Your task to perform on an android device: Open Chrome and go to the settings page Image 0: 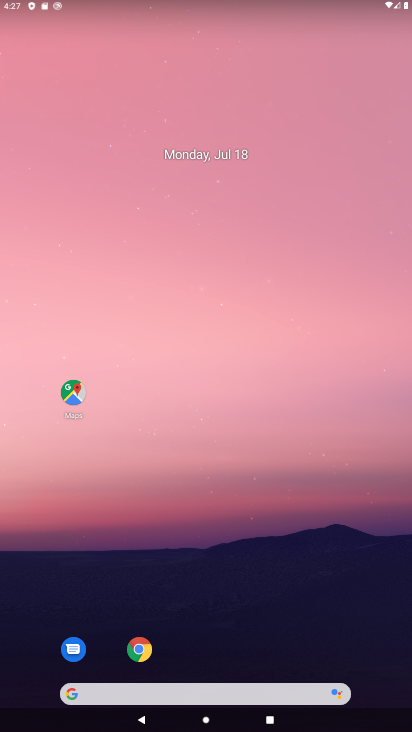
Step 0: click (137, 656)
Your task to perform on an android device: Open Chrome and go to the settings page Image 1: 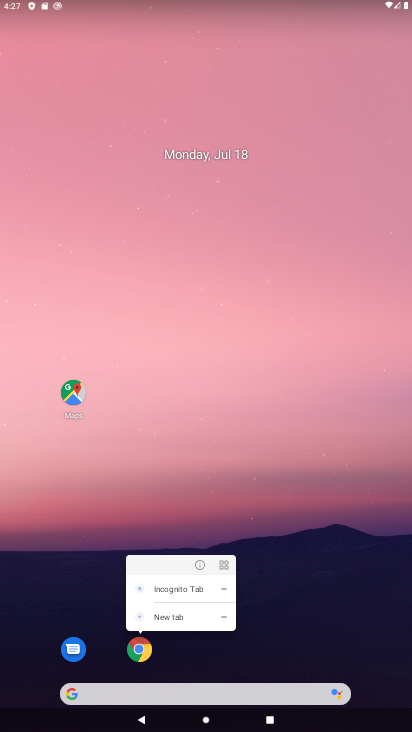
Step 1: click (144, 650)
Your task to perform on an android device: Open Chrome and go to the settings page Image 2: 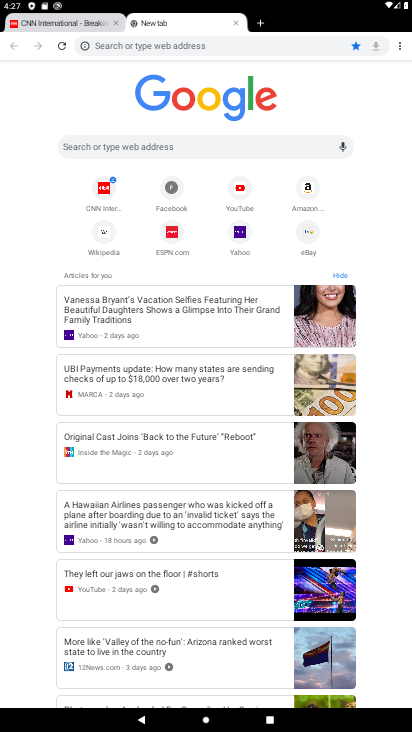
Step 2: click (400, 45)
Your task to perform on an android device: Open Chrome and go to the settings page Image 3: 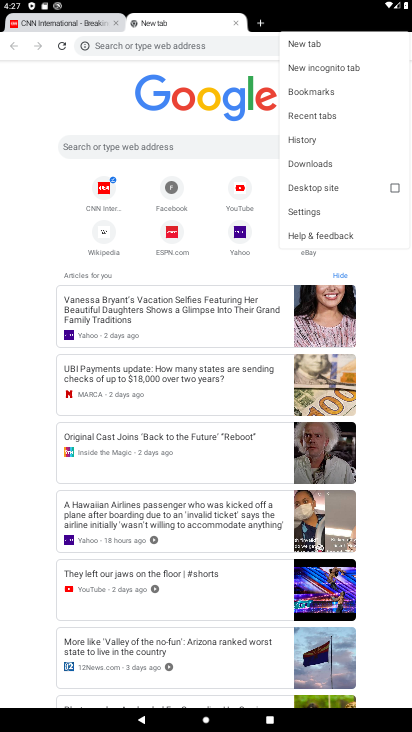
Step 3: click (307, 213)
Your task to perform on an android device: Open Chrome and go to the settings page Image 4: 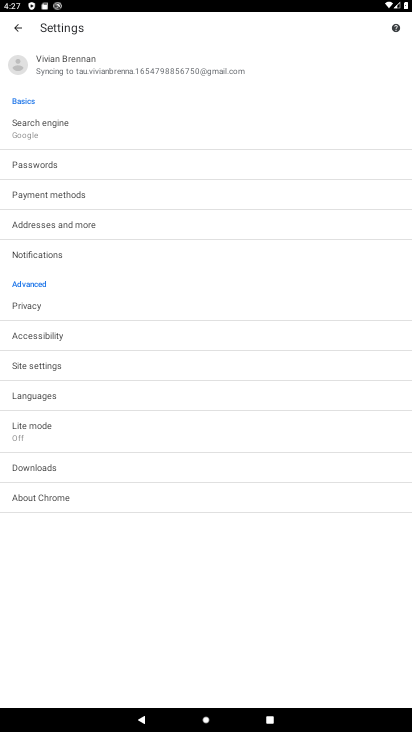
Step 4: task complete